Your task to perform on an android device: Go to ESPN.com Image 0: 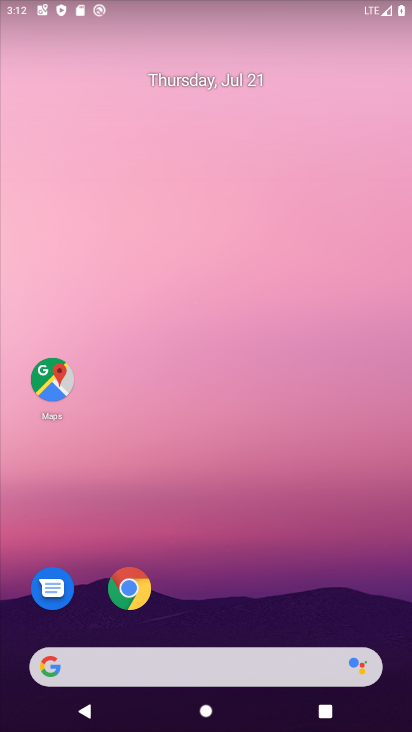
Step 0: click (135, 577)
Your task to perform on an android device: Go to ESPN.com Image 1: 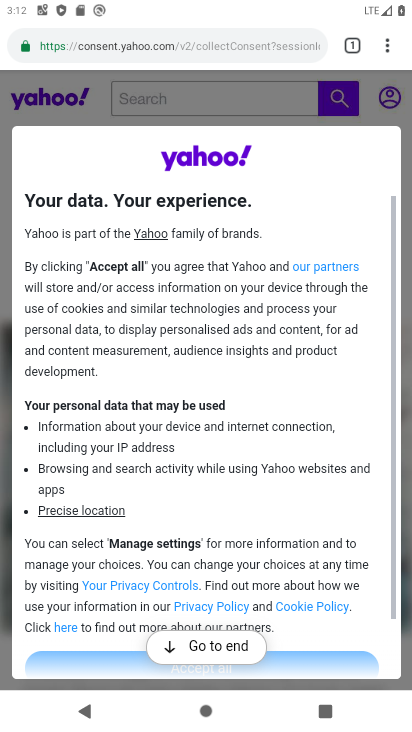
Step 1: click (81, 47)
Your task to perform on an android device: Go to ESPN.com Image 2: 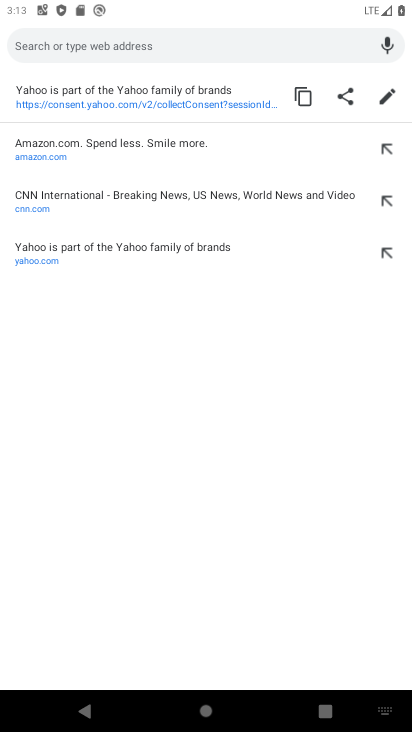
Step 2: type "ESPN.com"
Your task to perform on an android device: Go to ESPN.com Image 3: 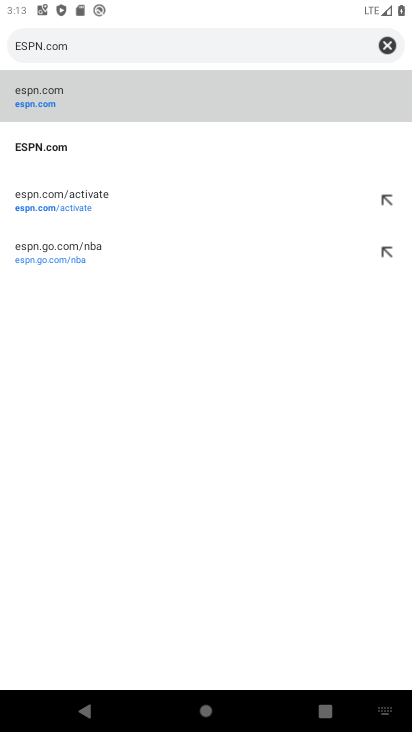
Step 3: click (110, 109)
Your task to perform on an android device: Go to ESPN.com Image 4: 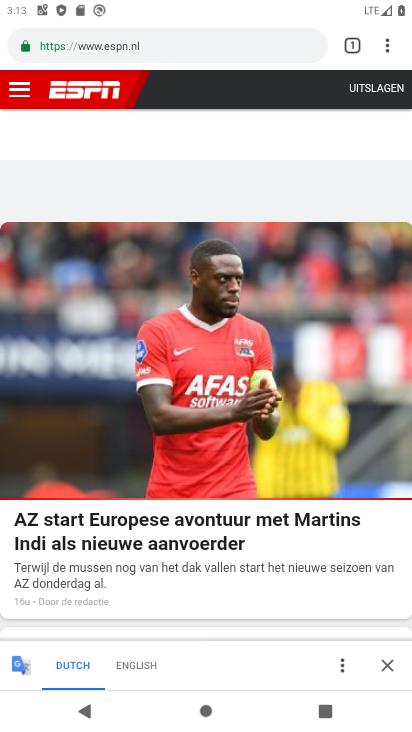
Step 4: task complete